Your task to perform on an android device: turn pop-ups off in chrome Image 0: 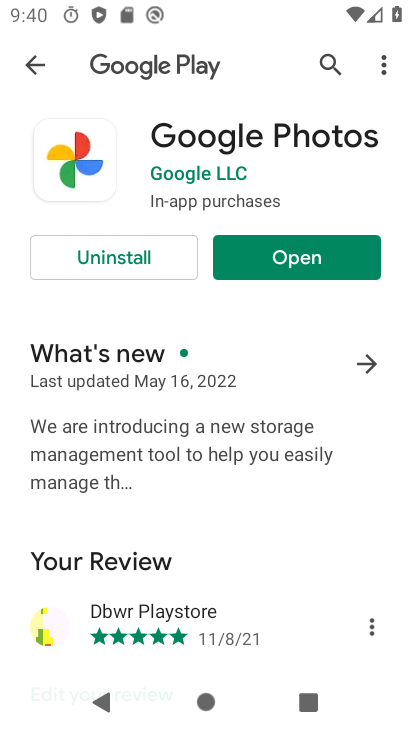
Step 0: press home button
Your task to perform on an android device: turn pop-ups off in chrome Image 1: 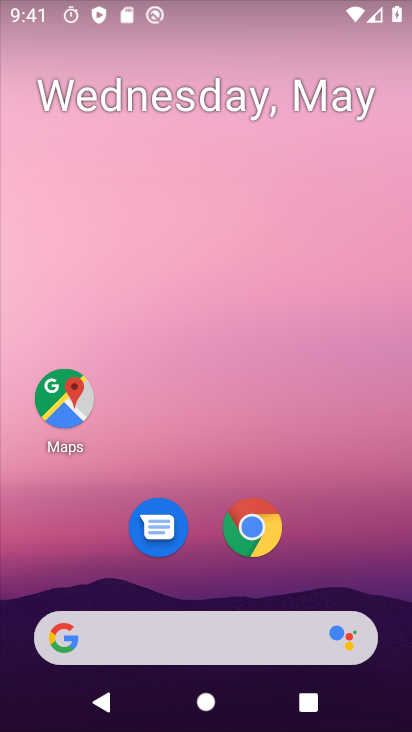
Step 1: click (255, 537)
Your task to perform on an android device: turn pop-ups off in chrome Image 2: 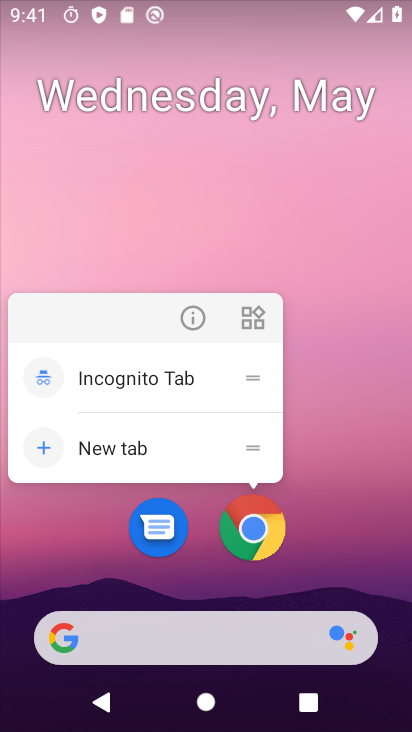
Step 2: click (255, 537)
Your task to perform on an android device: turn pop-ups off in chrome Image 3: 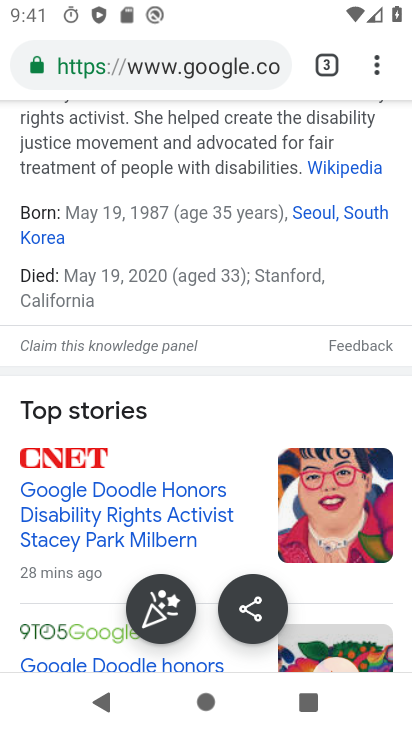
Step 3: drag from (377, 66) to (183, 584)
Your task to perform on an android device: turn pop-ups off in chrome Image 4: 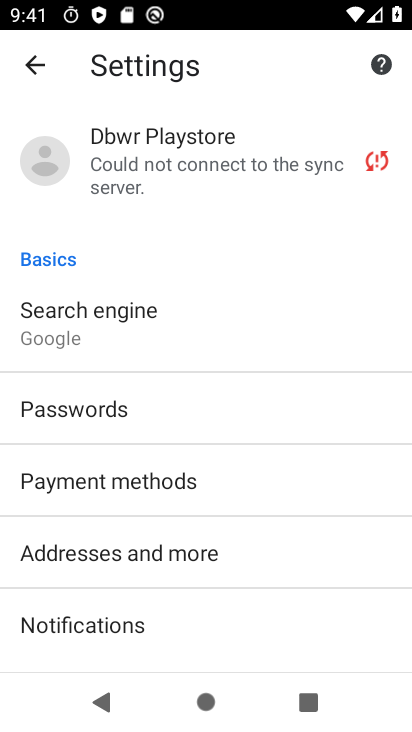
Step 4: drag from (203, 584) to (362, 216)
Your task to perform on an android device: turn pop-ups off in chrome Image 5: 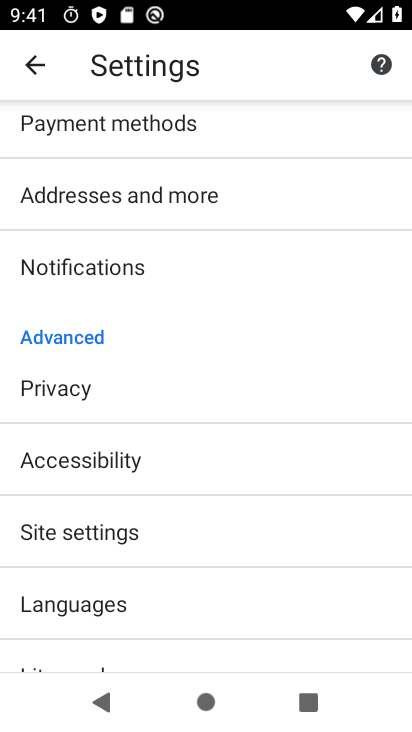
Step 5: click (107, 525)
Your task to perform on an android device: turn pop-ups off in chrome Image 6: 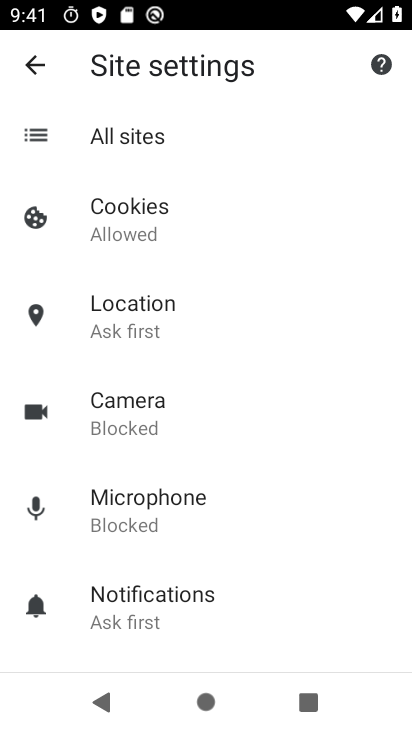
Step 6: drag from (239, 573) to (332, 226)
Your task to perform on an android device: turn pop-ups off in chrome Image 7: 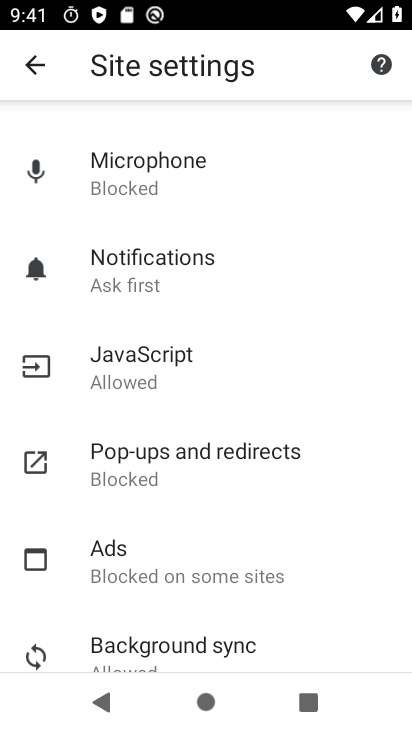
Step 7: click (160, 446)
Your task to perform on an android device: turn pop-ups off in chrome Image 8: 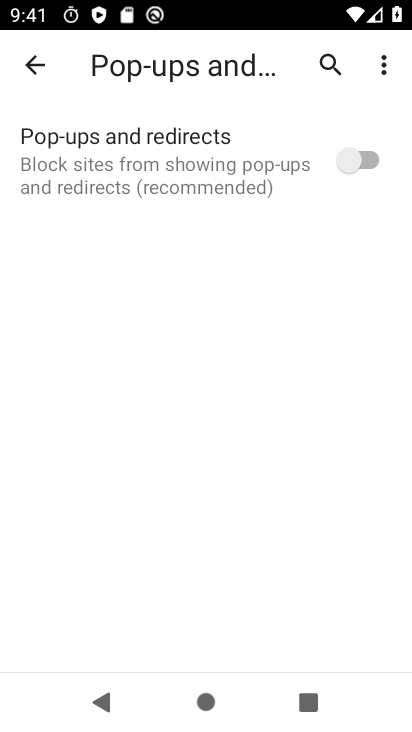
Step 8: task complete